Your task to perform on an android device: turn off notifications in google photos Image 0: 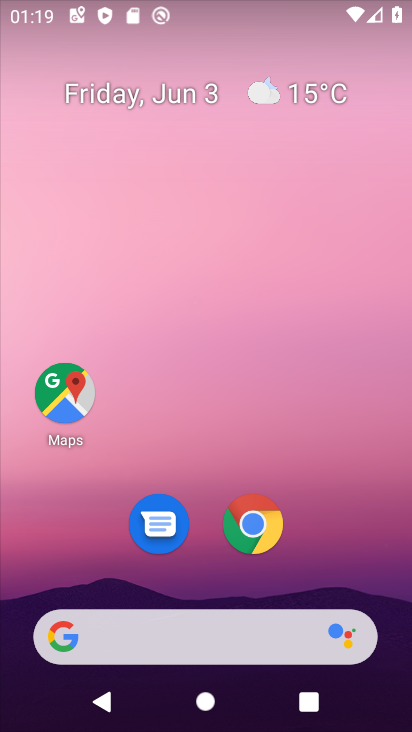
Step 0: drag from (319, 569) to (365, 41)
Your task to perform on an android device: turn off notifications in google photos Image 1: 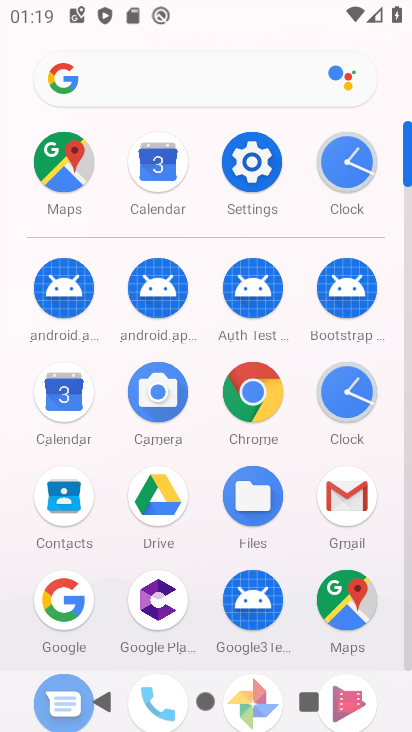
Step 1: click (260, 165)
Your task to perform on an android device: turn off notifications in google photos Image 2: 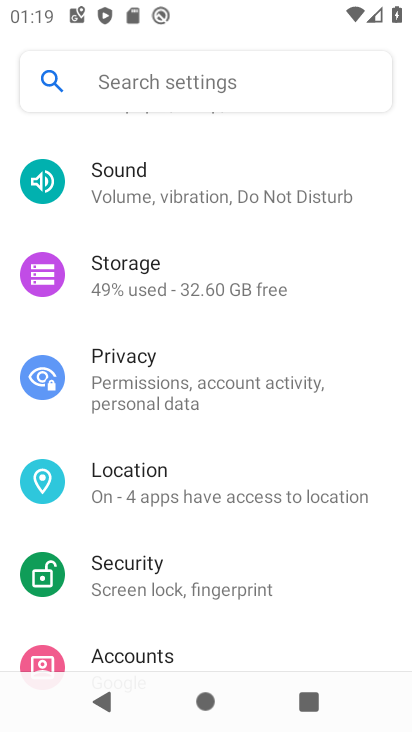
Step 2: drag from (214, 267) to (234, 661)
Your task to perform on an android device: turn off notifications in google photos Image 3: 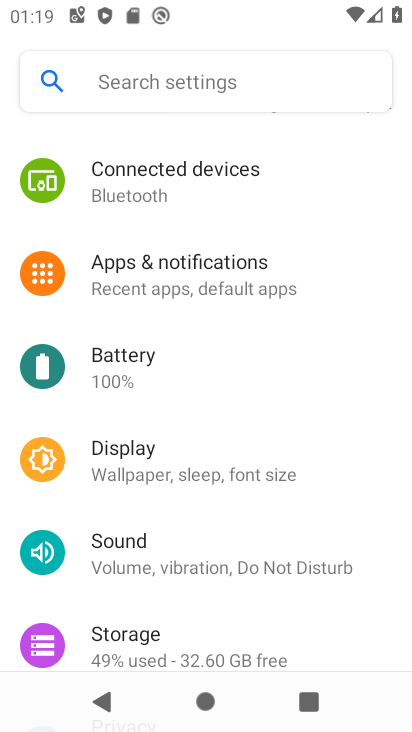
Step 3: click (195, 271)
Your task to perform on an android device: turn off notifications in google photos Image 4: 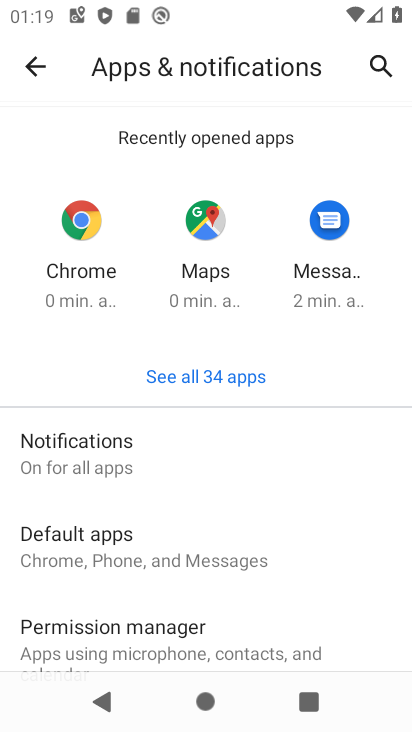
Step 4: click (226, 366)
Your task to perform on an android device: turn off notifications in google photos Image 5: 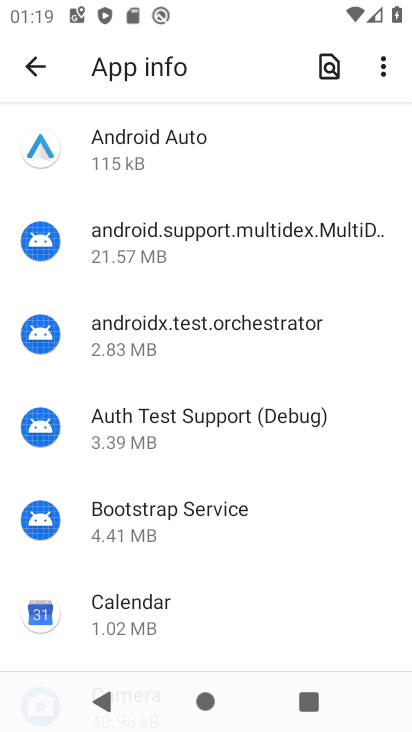
Step 5: drag from (234, 596) to (233, 19)
Your task to perform on an android device: turn off notifications in google photos Image 6: 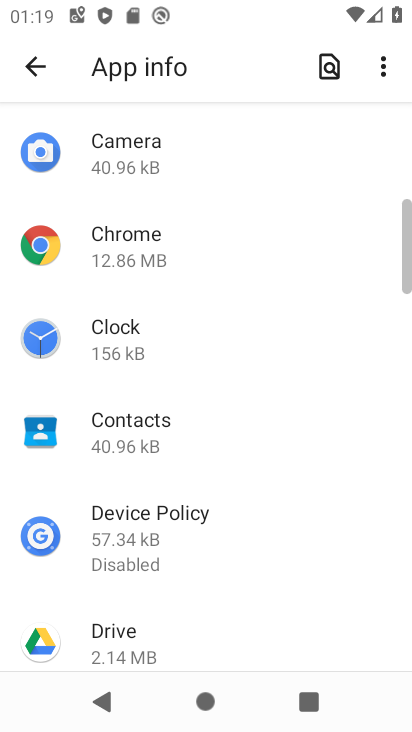
Step 6: drag from (260, 653) to (228, 2)
Your task to perform on an android device: turn off notifications in google photos Image 7: 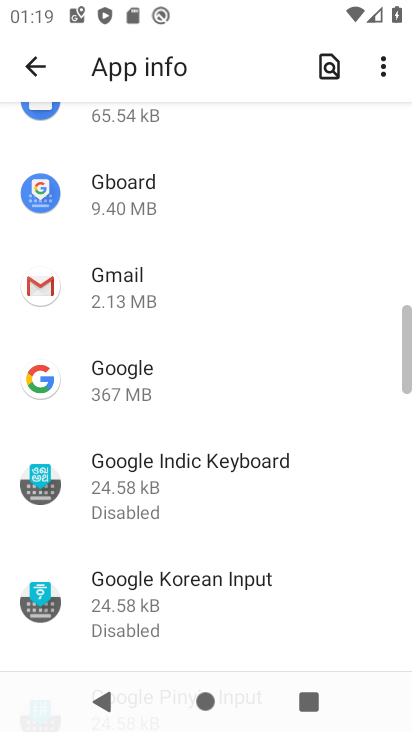
Step 7: drag from (223, 644) to (237, 8)
Your task to perform on an android device: turn off notifications in google photos Image 8: 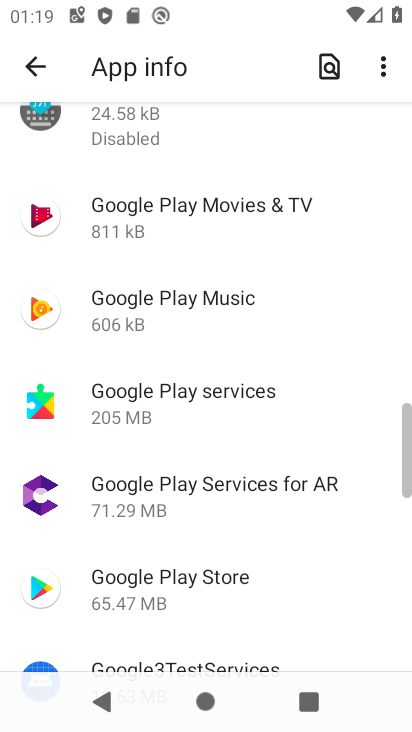
Step 8: drag from (276, 623) to (254, 59)
Your task to perform on an android device: turn off notifications in google photos Image 9: 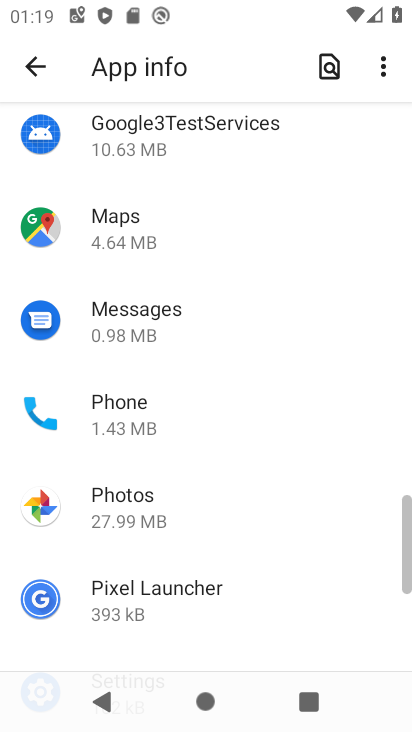
Step 9: click (174, 505)
Your task to perform on an android device: turn off notifications in google photos Image 10: 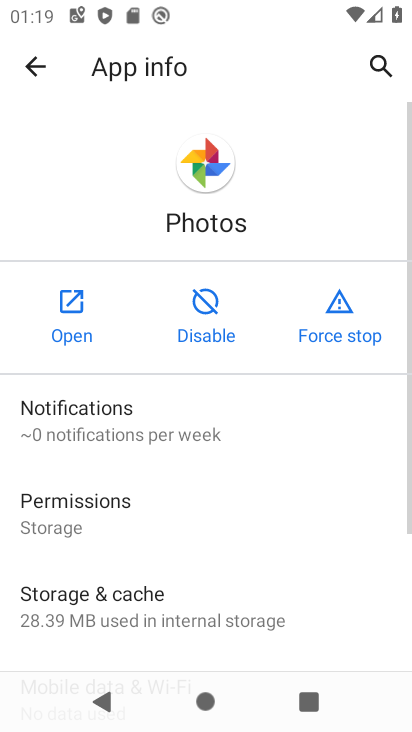
Step 10: click (159, 447)
Your task to perform on an android device: turn off notifications in google photos Image 11: 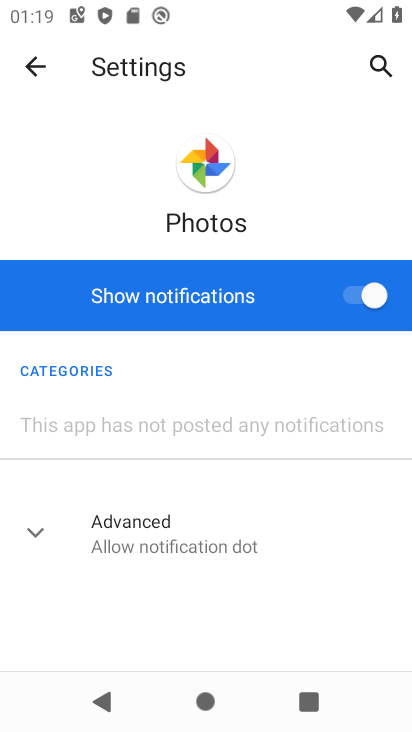
Step 11: click (364, 300)
Your task to perform on an android device: turn off notifications in google photos Image 12: 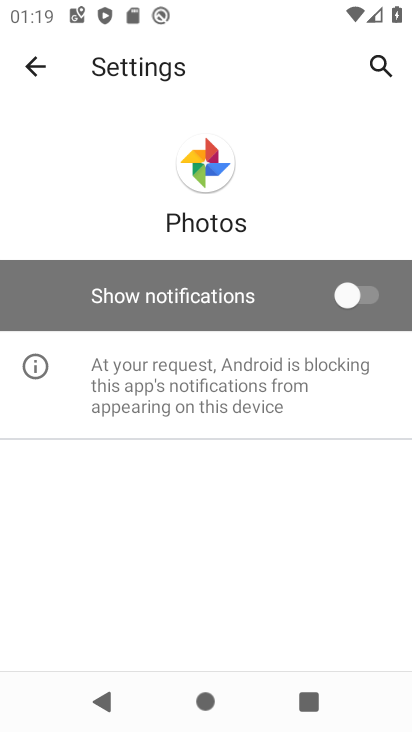
Step 12: task complete